Your task to perform on an android device: add a contact in the contacts app Image 0: 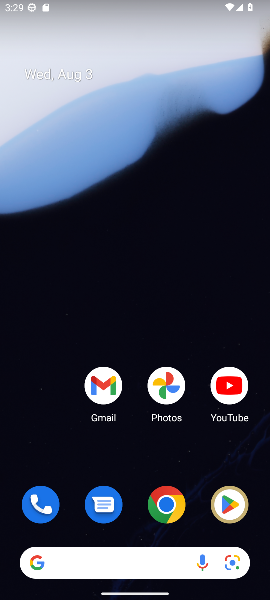
Step 0: drag from (128, 450) to (121, 35)
Your task to perform on an android device: add a contact in the contacts app Image 1: 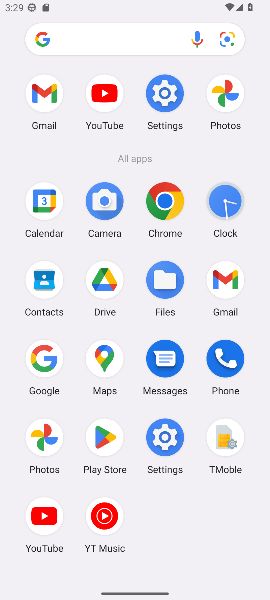
Step 1: click (40, 287)
Your task to perform on an android device: add a contact in the contacts app Image 2: 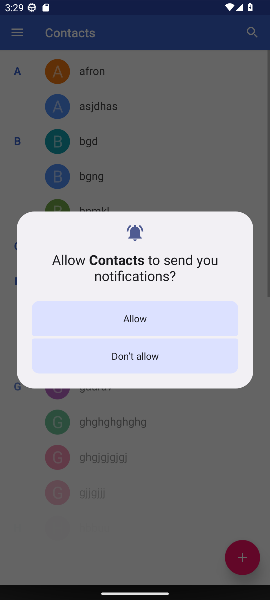
Step 2: click (133, 317)
Your task to perform on an android device: add a contact in the contacts app Image 3: 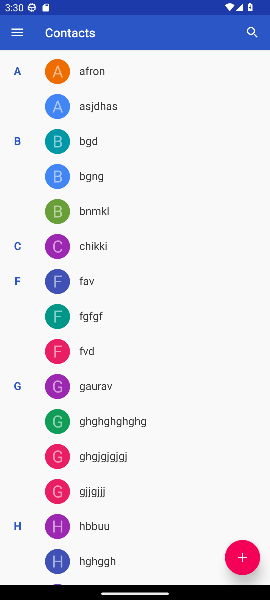
Step 3: click (230, 562)
Your task to perform on an android device: add a contact in the contacts app Image 4: 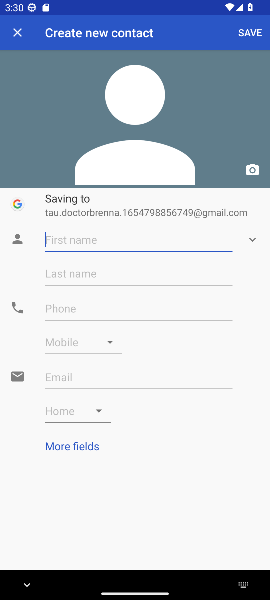
Step 4: type "kaani"
Your task to perform on an android device: add a contact in the contacts app Image 5: 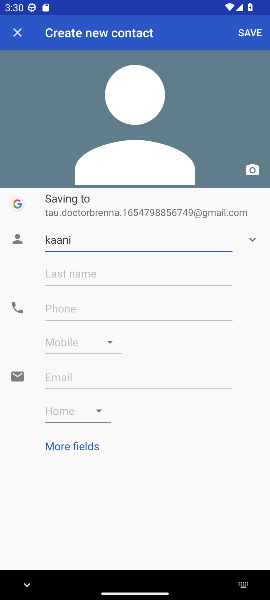
Step 5: click (240, 34)
Your task to perform on an android device: add a contact in the contacts app Image 6: 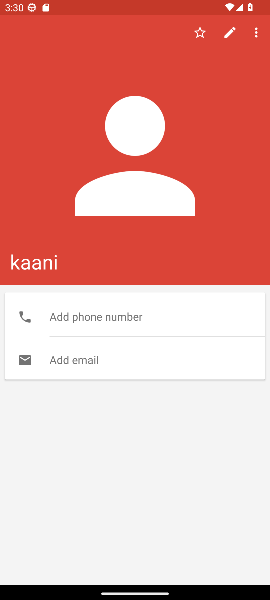
Step 6: task complete